Your task to perform on an android device: star an email in the gmail app Image 0: 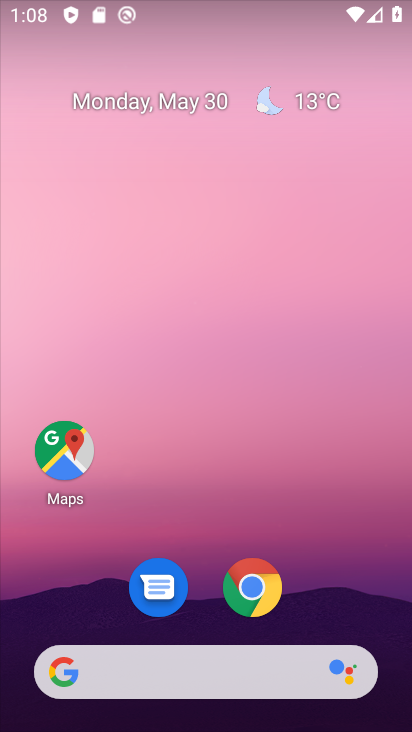
Step 0: drag from (341, 579) to (225, 37)
Your task to perform on an android device: star an email in the gmail app Image 1: 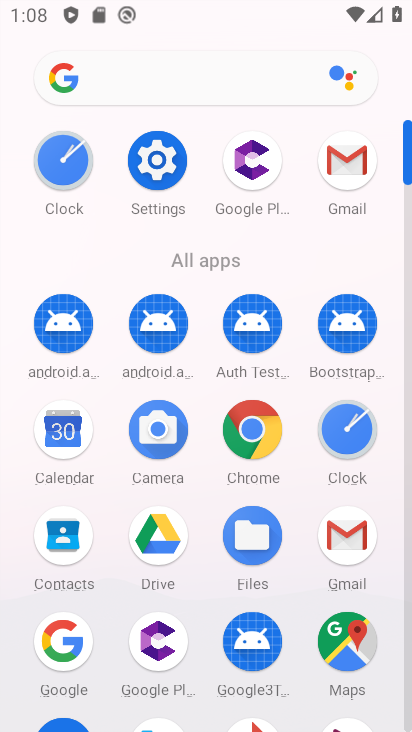
Step 1: click (345, 534)
Your task to perform on an android device: star an email in the gmail app Image 2: 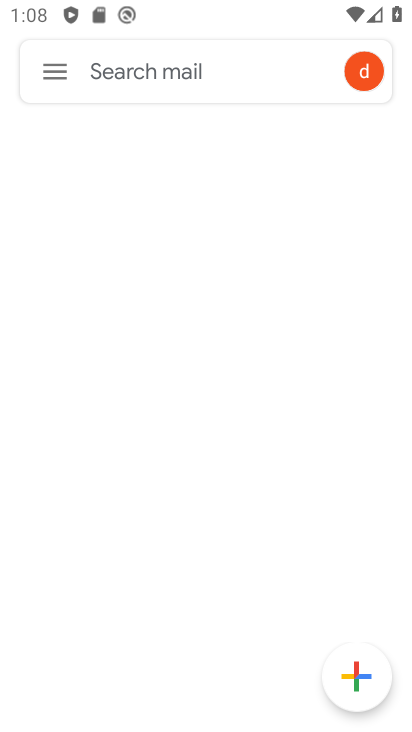
Step 2: click (49, 73)
Your task to perform on an android device: star an email in the gmail app Image 3: 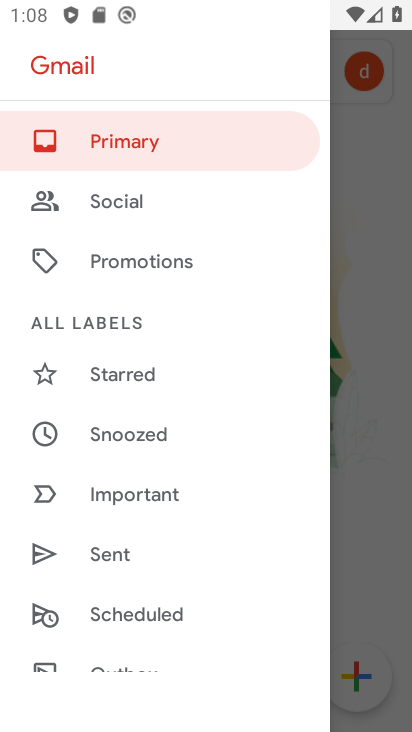
Step 3: drag from (178, 544) to (190, 122)
Your task to perform on an android device: star an email in the gmail app Image 4: 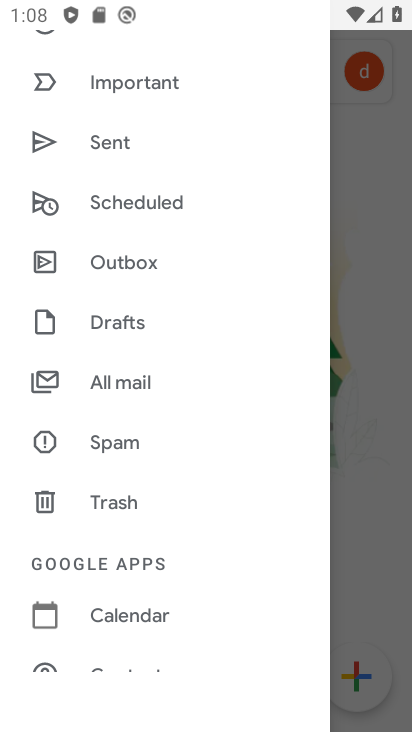
Step 4: click (150, 387)
Your task to perform on an android device: star an email in the gmail app Image 5: 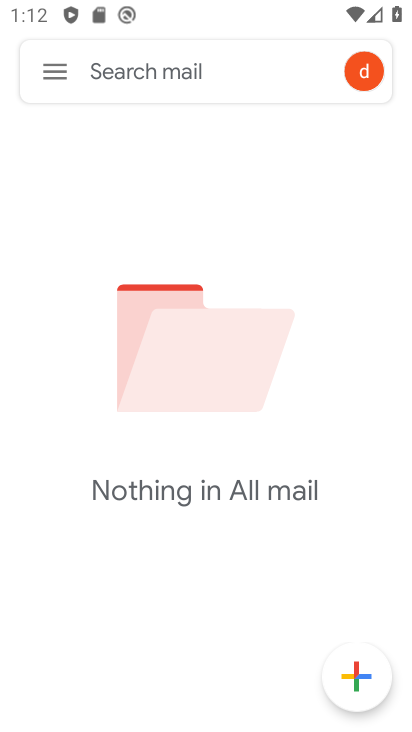
Step 5: task complete